Your task to perform on an android device: Open calendar and show me the third week of next month Image 0: 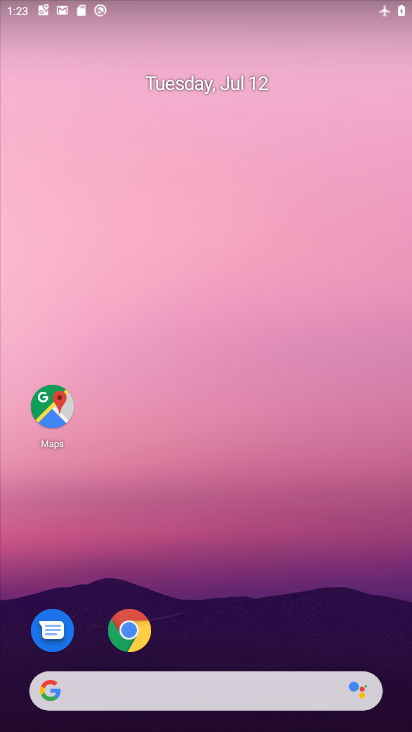
Step 0: drag from (299, 515) to (363, 70)
Your task to perform on an android device: Open calendar and show me the third week of next month Image 1: 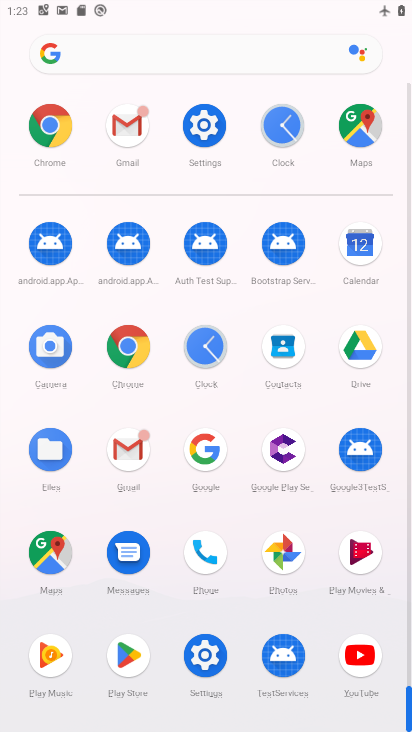
Step 1: click (370, 252)
Your task to perform on an android device: Open calendar and show me the third week of next month Image 2: 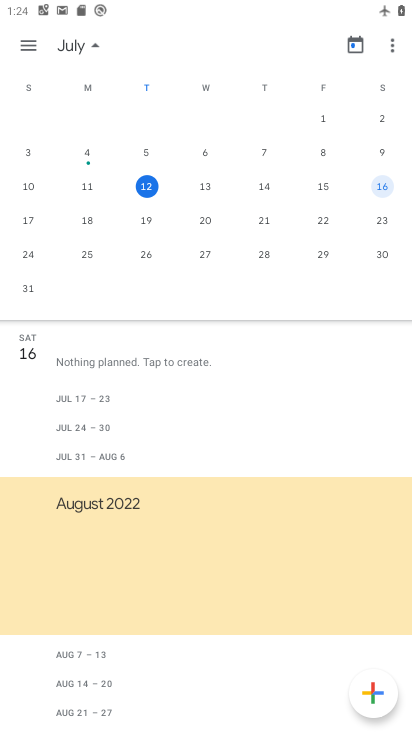
Step 2: drag from (361, 205) to (5, 501)
Your task to perform on an android device: Open calendar and show me the third week of next month Image 3: 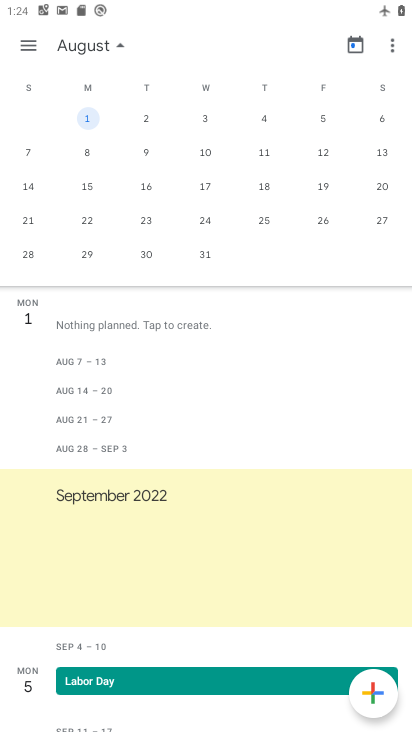
Step 3: click (35, 190)
Your task to perform on an android device: Open calendar and show me the third week of next month Image 4: 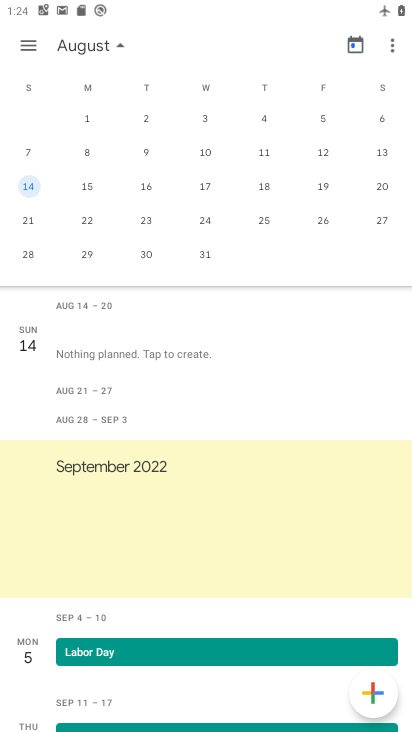
Step 4: task complete